Your task to perform on an android device: turn pop-ups on in chrome Image 0: 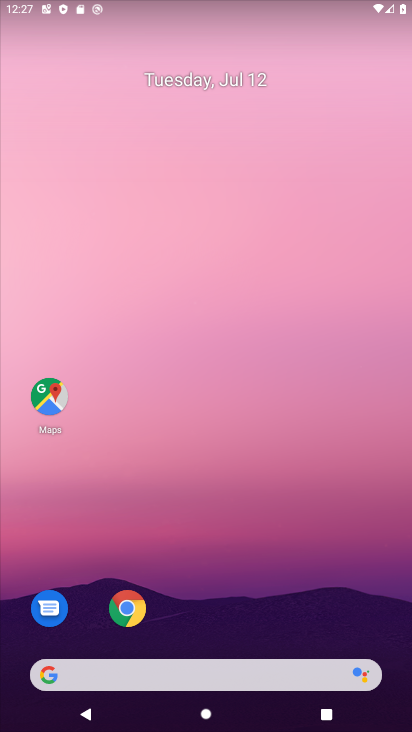
Step 0: click (122, 621)
Your task to perform on an android device: turn pop-ups on in chrome Image 1: 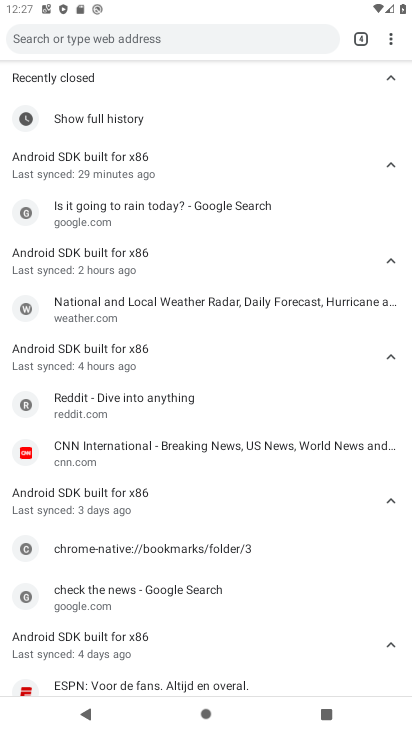
Step 1: click (392, 36)
Your task to perform on an android device: turn pop-ups on in chrome Image 2: 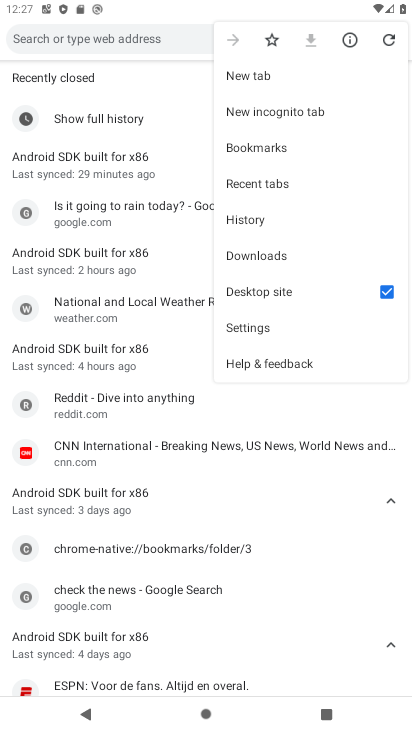
Step 2: click (276, 331)
Your task to perform on an android device: turn pop-ups on in chrome Image 3: 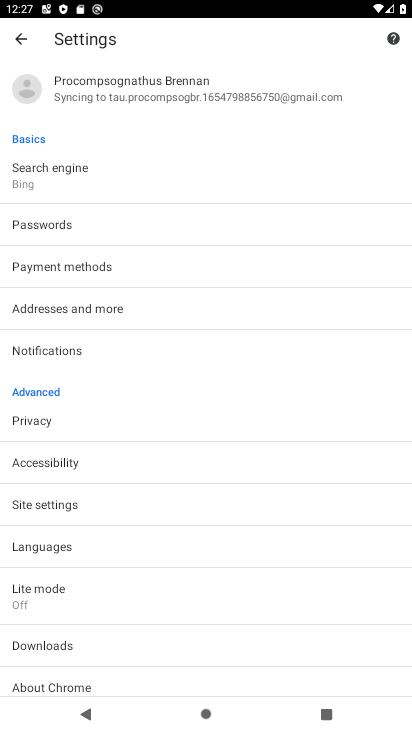
Step 3: click (103, 493)
Your task to perform on an android device: turn pop-ups on in chrome Image 4: 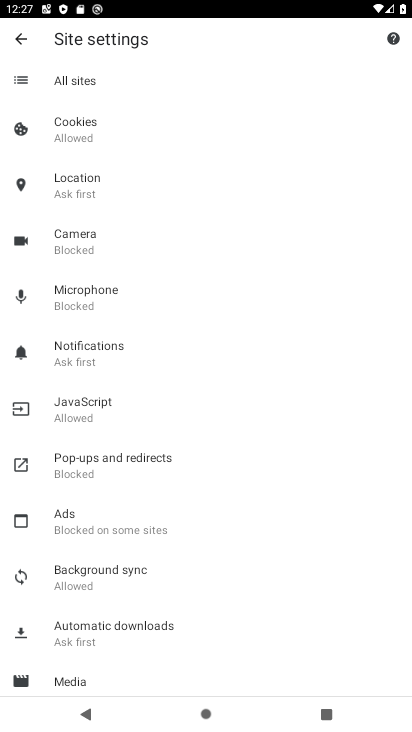
Step 4: click (114, 465)
Your task to perform on an android device: turn pop-ups on in chrome Image 5: 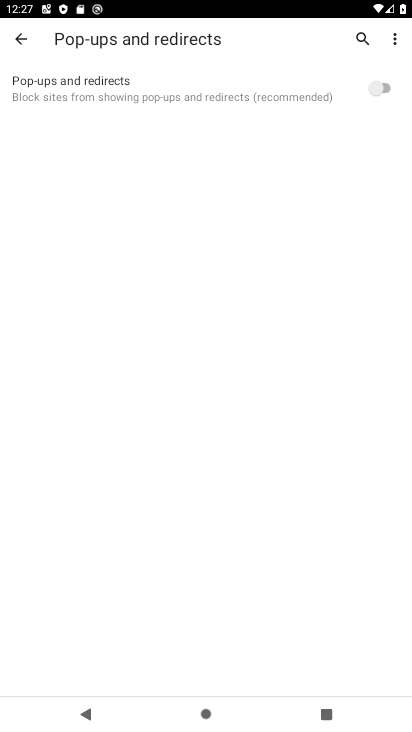
Step 5: click (385, 85)
Your task to perform on an android device: turn pop-ups on in chrome Image 6: 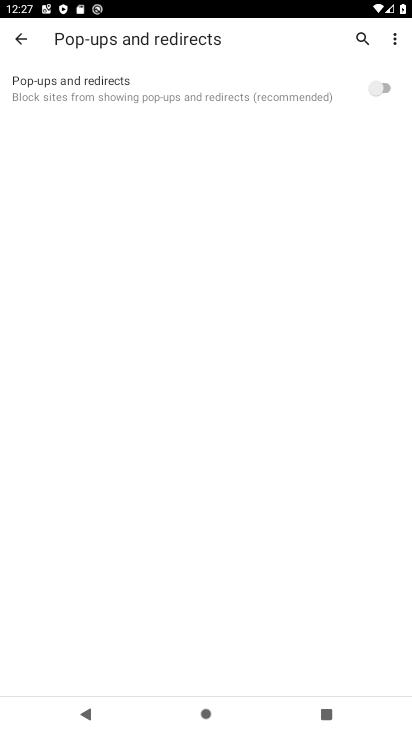
Step 6: click (385, 85)
Your task to perform on an android device: turn pop-ups on in chrome Image 7: 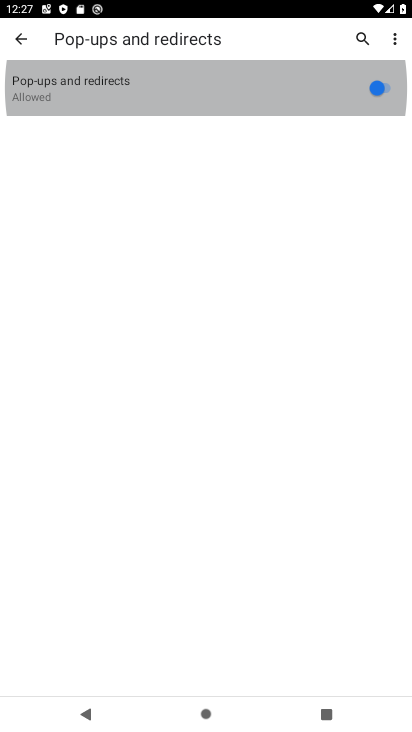
Step 7: click (385, 85)
Your task to perform on an android device: turn pop-ups on in chrome Image 8: 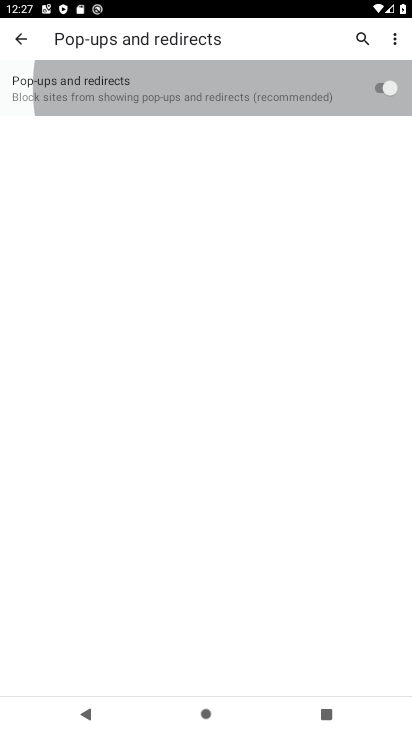
Step 8: click (385, 85)
Your task to perform on an android device: turn pop-ups on in chrome Image 9: 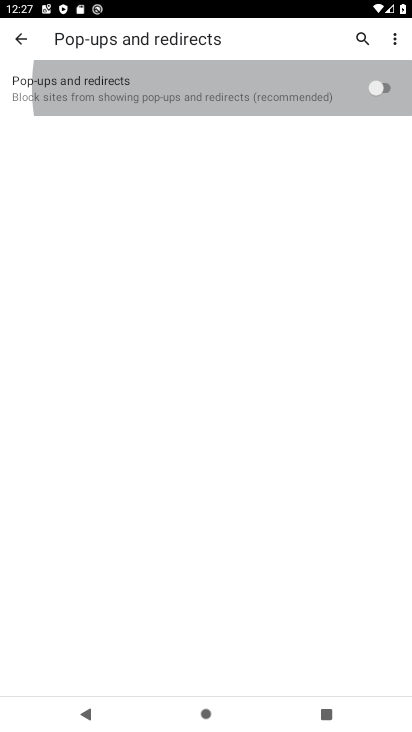
Step 9: click (385, 85)
Your task to perform on an android device: turn pop-ups on in chrome Image 10: 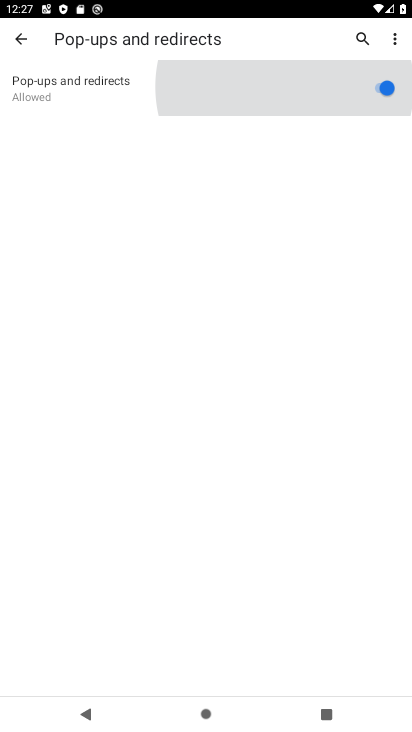
Step 10: click (385, 85)
Your task to perform on an android device: turn pop-ups on in chrome Image 11: 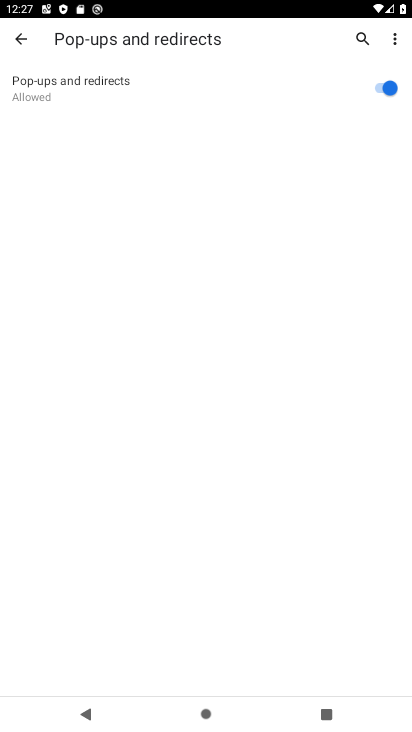
Step 11: task complete